Your task to perform on an android device: View the shopping cart on costco.com. Search for "logitech g pro" on costco.com, select the first entry, add it to the cart, then select checkout. Image 0: 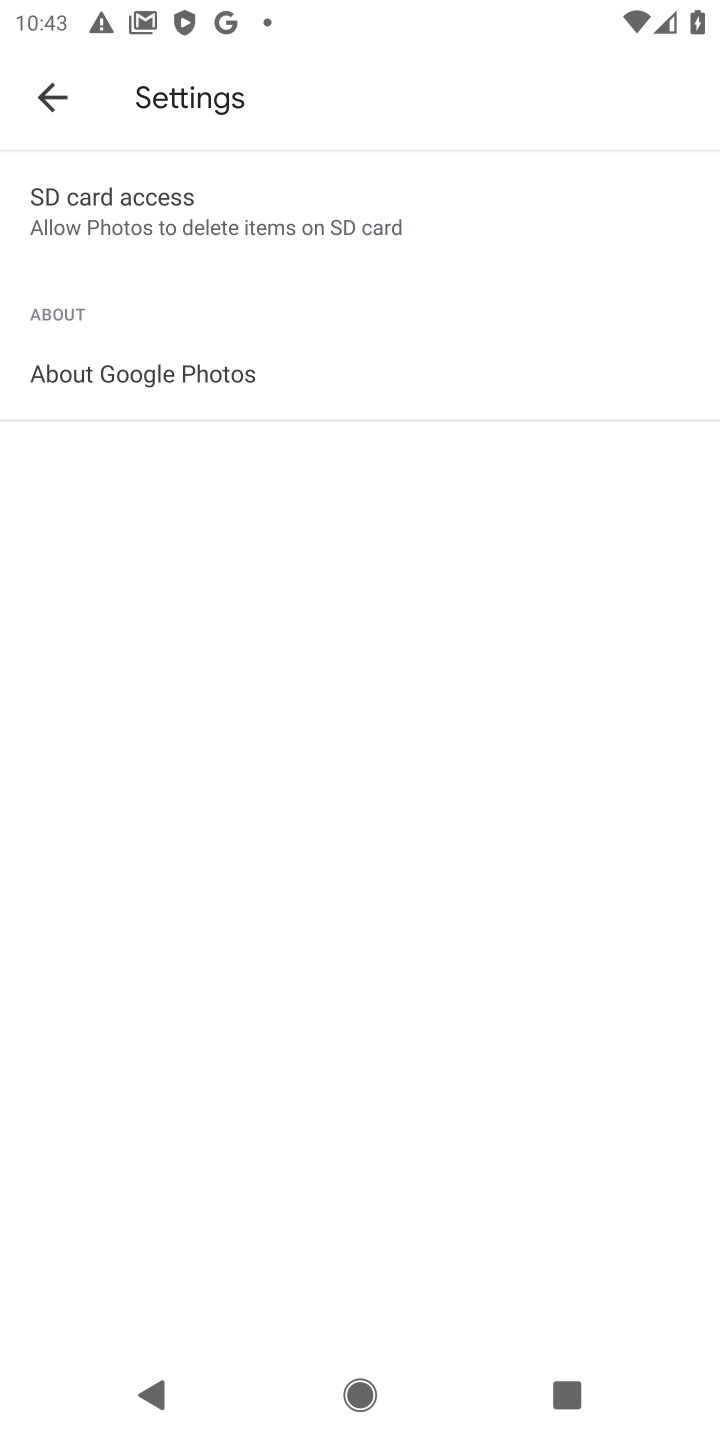
Step 0: press home button
Your task to perform on an android device: View the shopping cart on costco.com. Search for "logitech g pro" on costco.com, select the first entry, add it to the cart, then select checkout. Image 1: 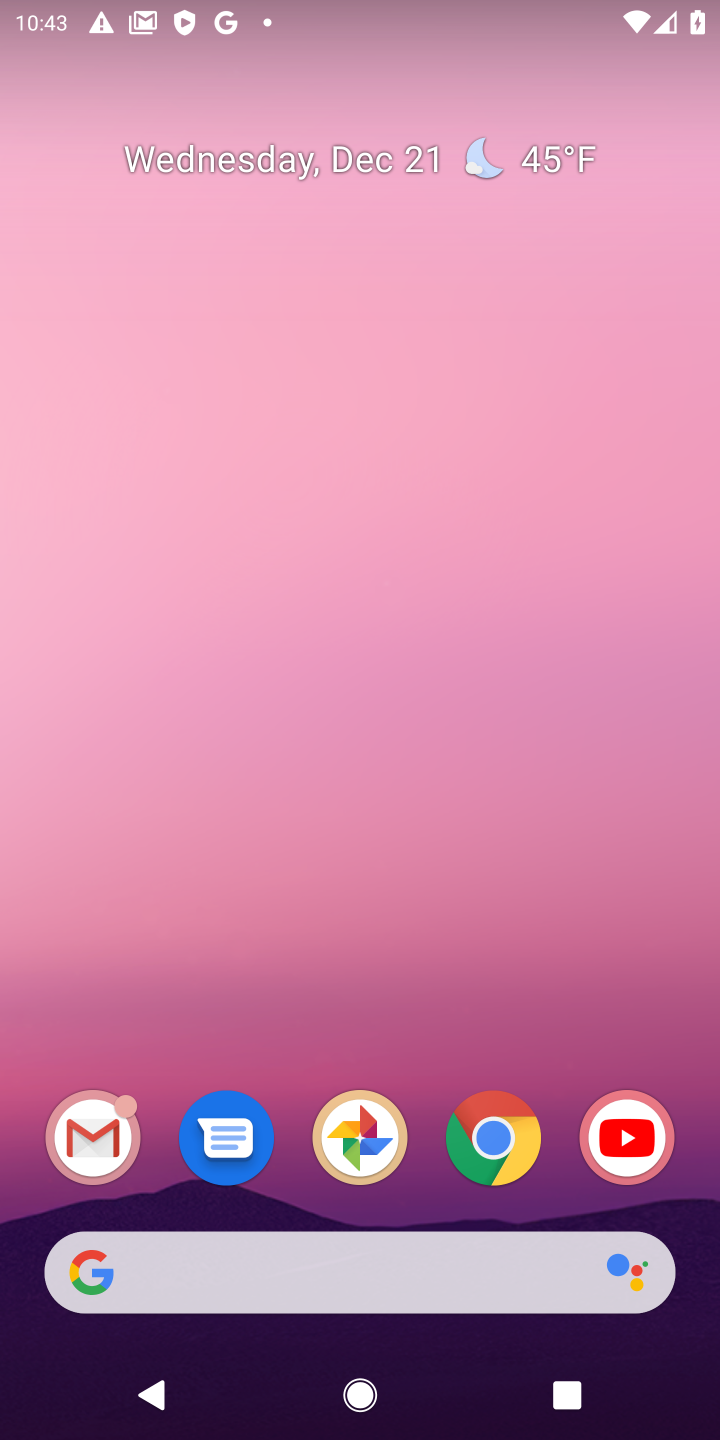
Step 1: click (499, 1141)
Your task to perform on an android device: View the shopping cart on costco.com. Search for "logitech g pro" on costco.com, select the first entry, add it to the cart, then select checkout. Image 2: 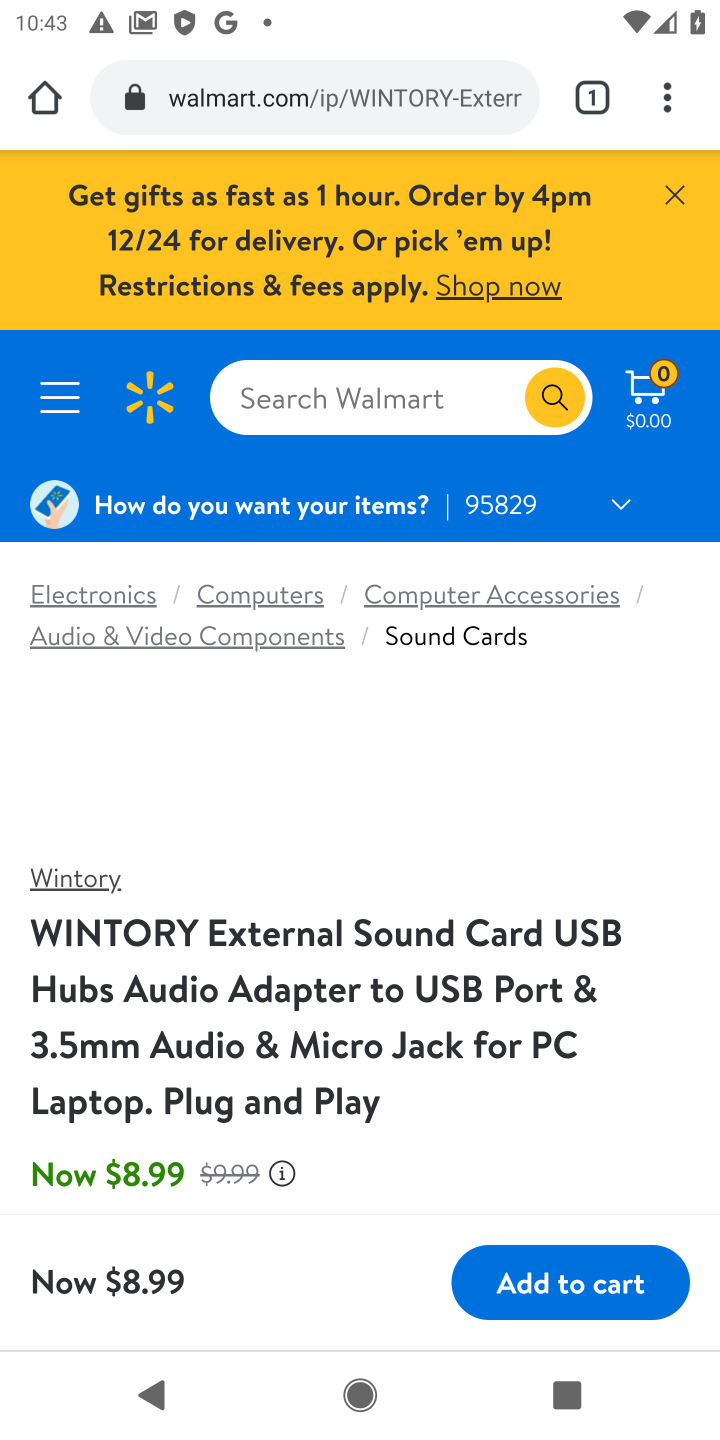
Step 2: click (242, 105)
Your task to perform on an android device: View the shopping cart on costco.com. Search for "logitech g pro" on costco.com, select the first entry, add it to the cart, then select checkout. Image 3: 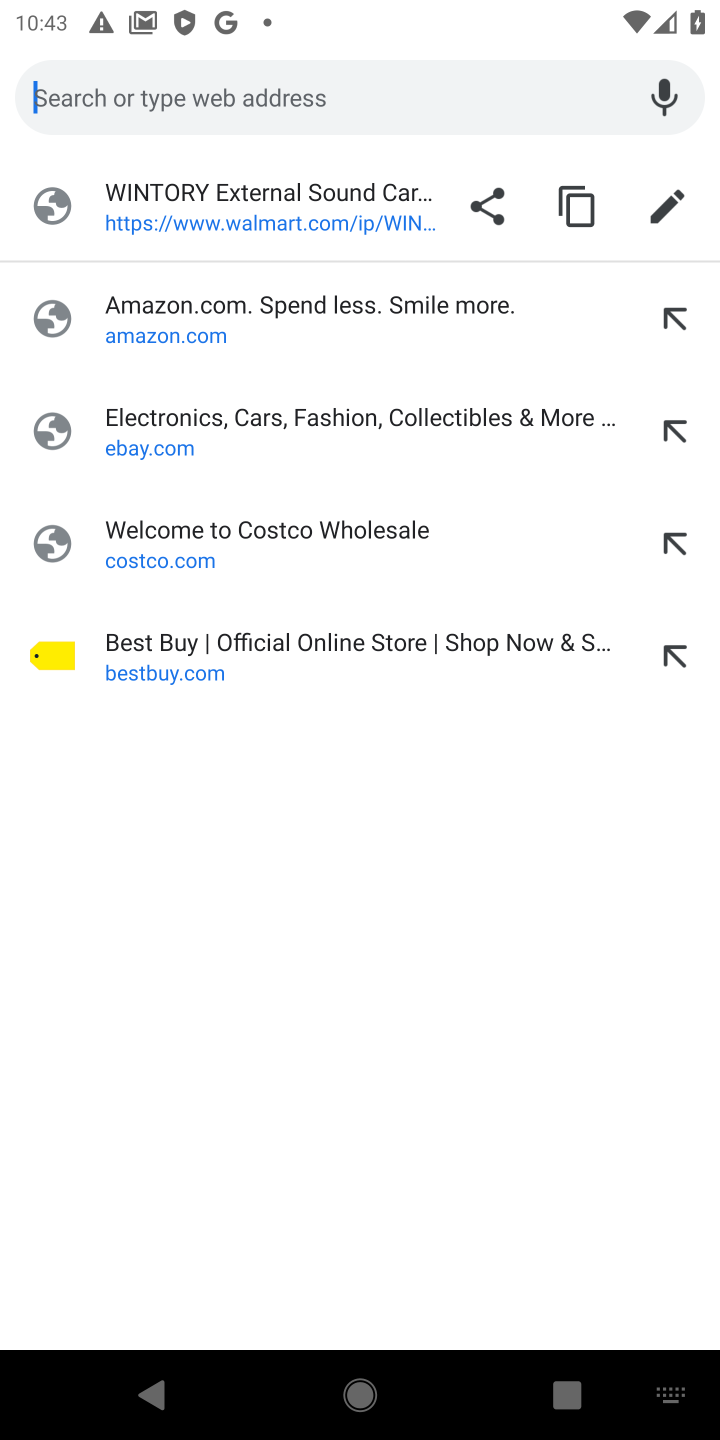
Step 3: click (129, 539)
Your task to perform on an android device: View the shopping cart on costco.com. Search for "logitech g pro" on costco.com, select the first entry, add it to the cart, then select checkout. Image 4: 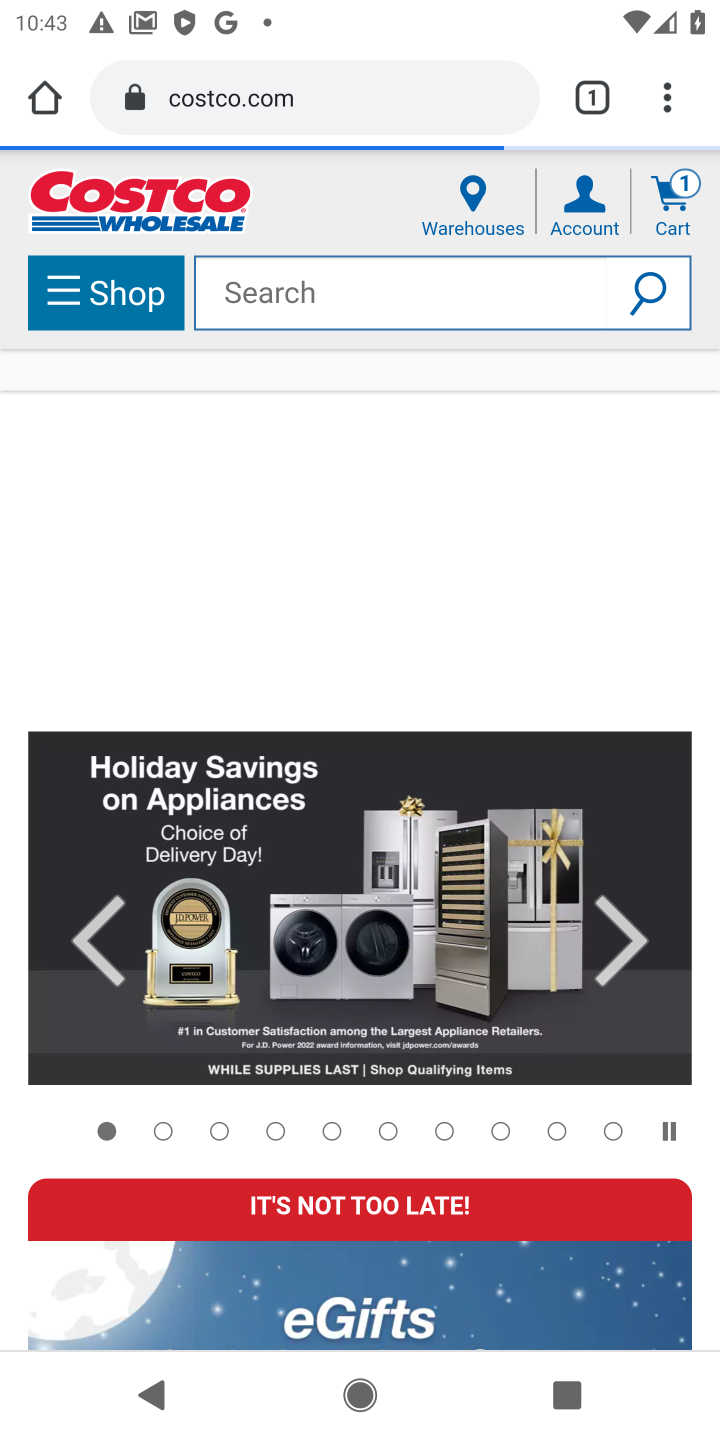
Step 4: click (657, 209)
Your task to perform on an android device: View the shopping cart on costco.com. Search for "logitech g pro" on costco.com, select the first entry, add it to the cart, then select checkout. Image 5: 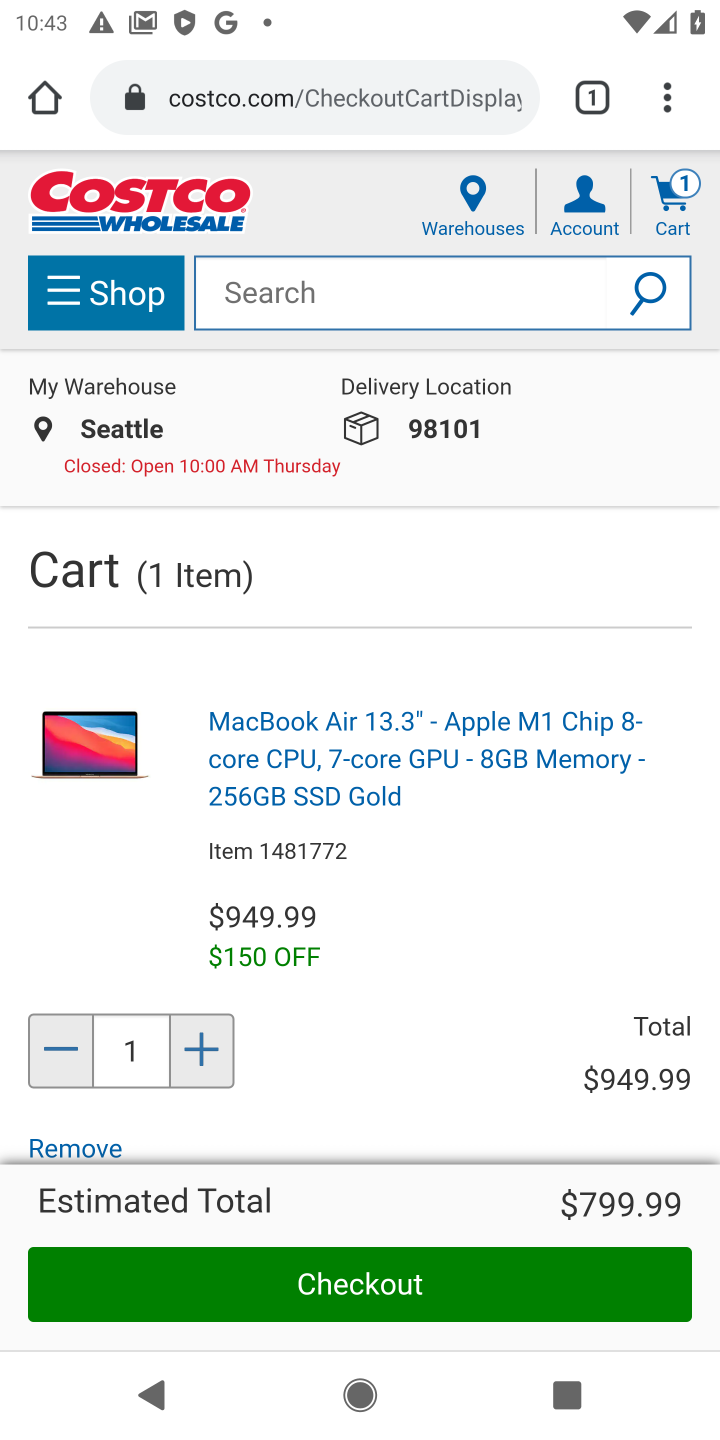
Step 5: drag from (351, 959) to (349, 731)
Your task to perform on an android device: View the shopping cart on costco.com. Search for "logitech g pro" on costco.com, select the first entry, add it to the cart, then select checkout. Image 6: 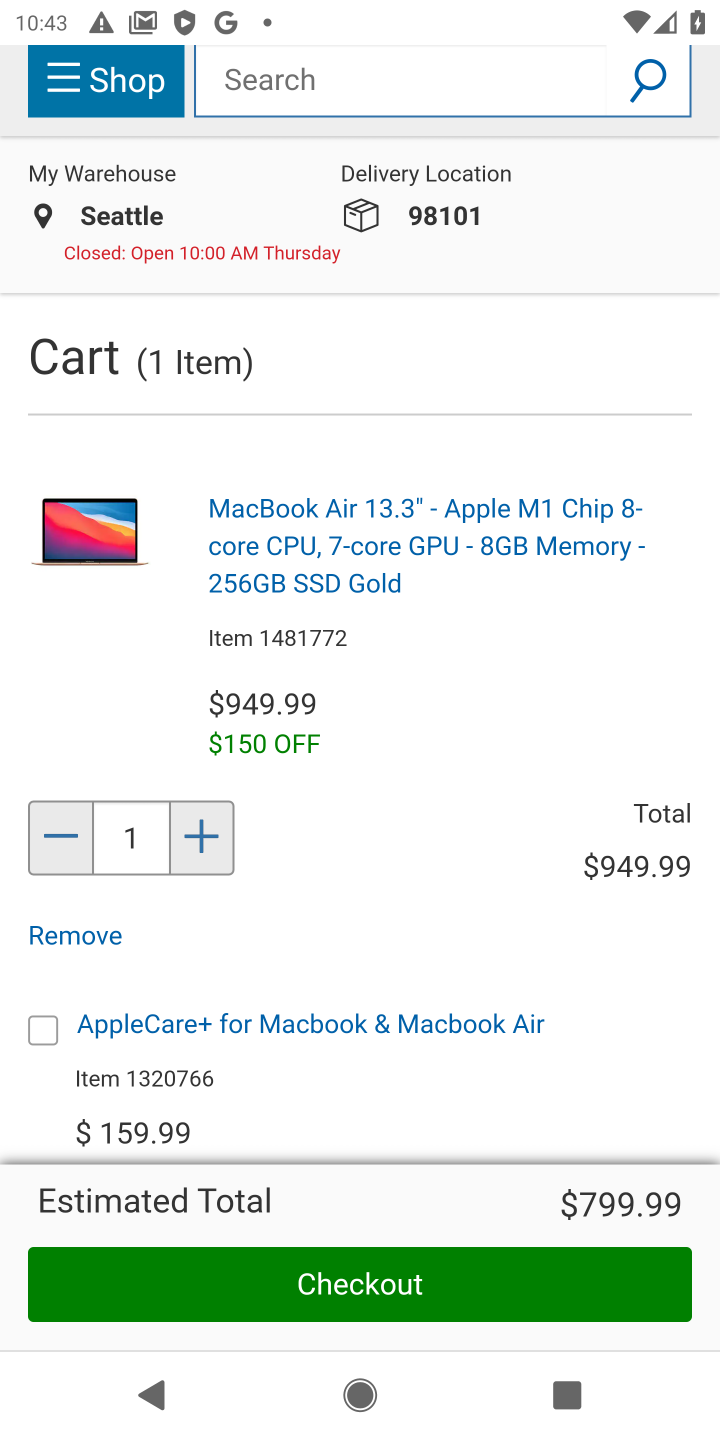
Step 6: drag from (398, 362) to (378, 853)
Your task to perform on an android device: View the shopping cart on costco.com. Search for "logitech g pro" on costco.com, select the first entry, add it to the cart, then select checkout. Image 7: 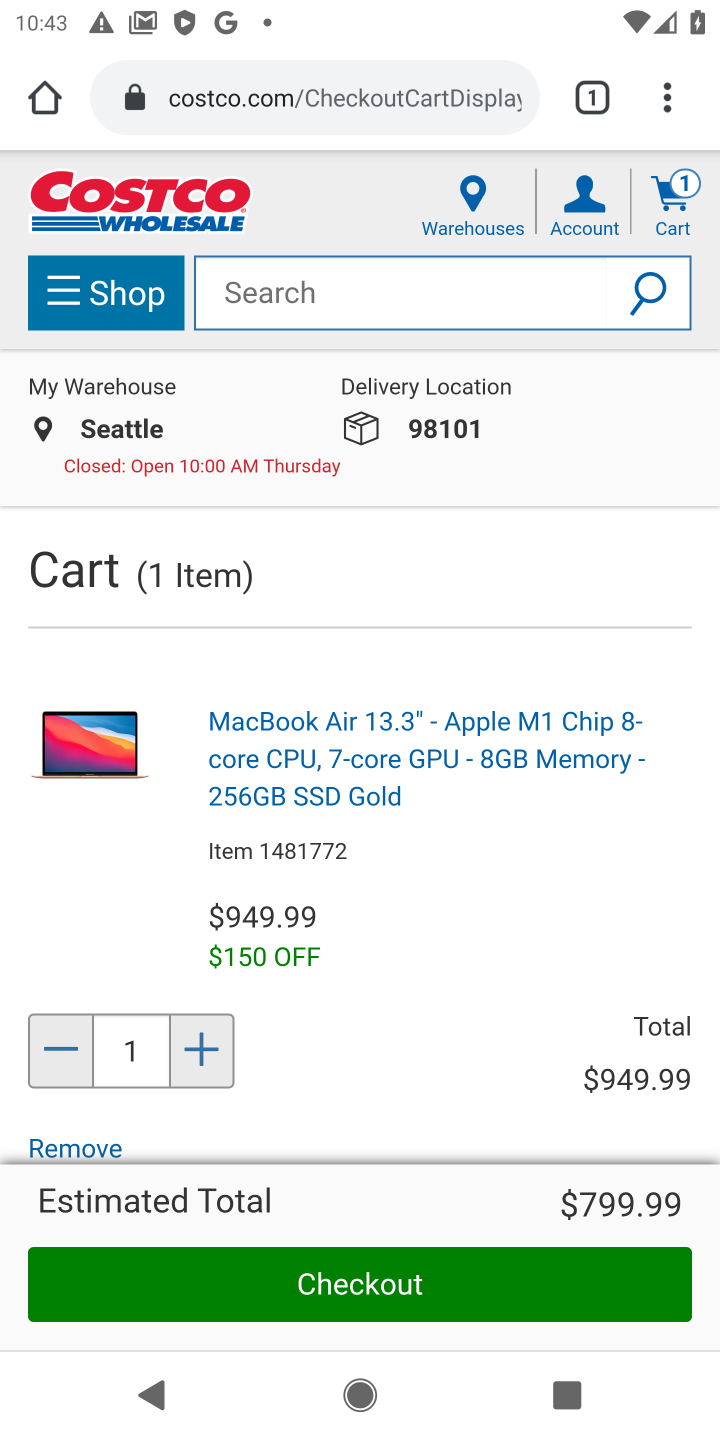
Step 7: click (281, 289)
Your task to perform on an android device: View the shopping cart on costco.com. Search for "logitech g pro" on costco.com, select the first entry, add it to the cart, then select checkout. Image 8: 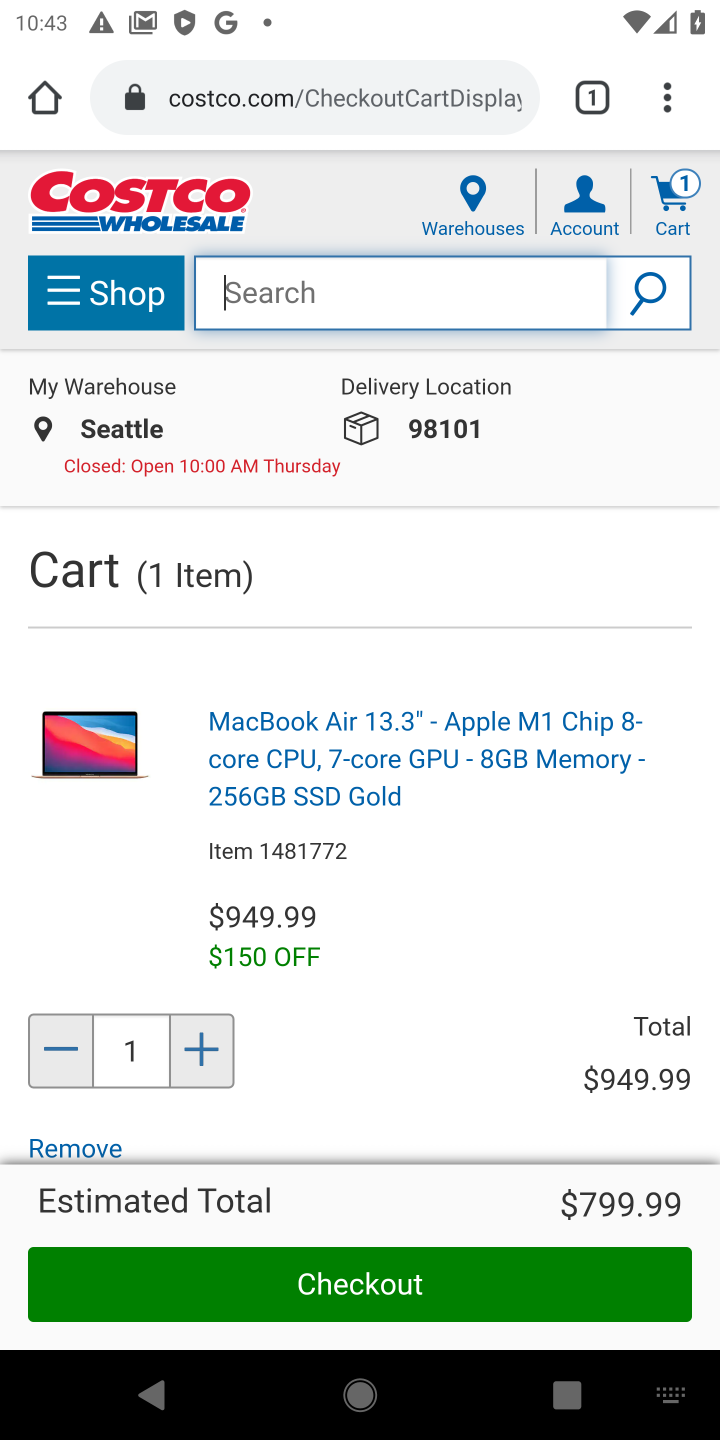
Step 8: type "logitech g pro"
Your task to perform on an android device: View the shopping cart on costco.com. Search for "logitech g pro" on costco.com, select the first entry, add it to the cart, then select checkout. Image 9: 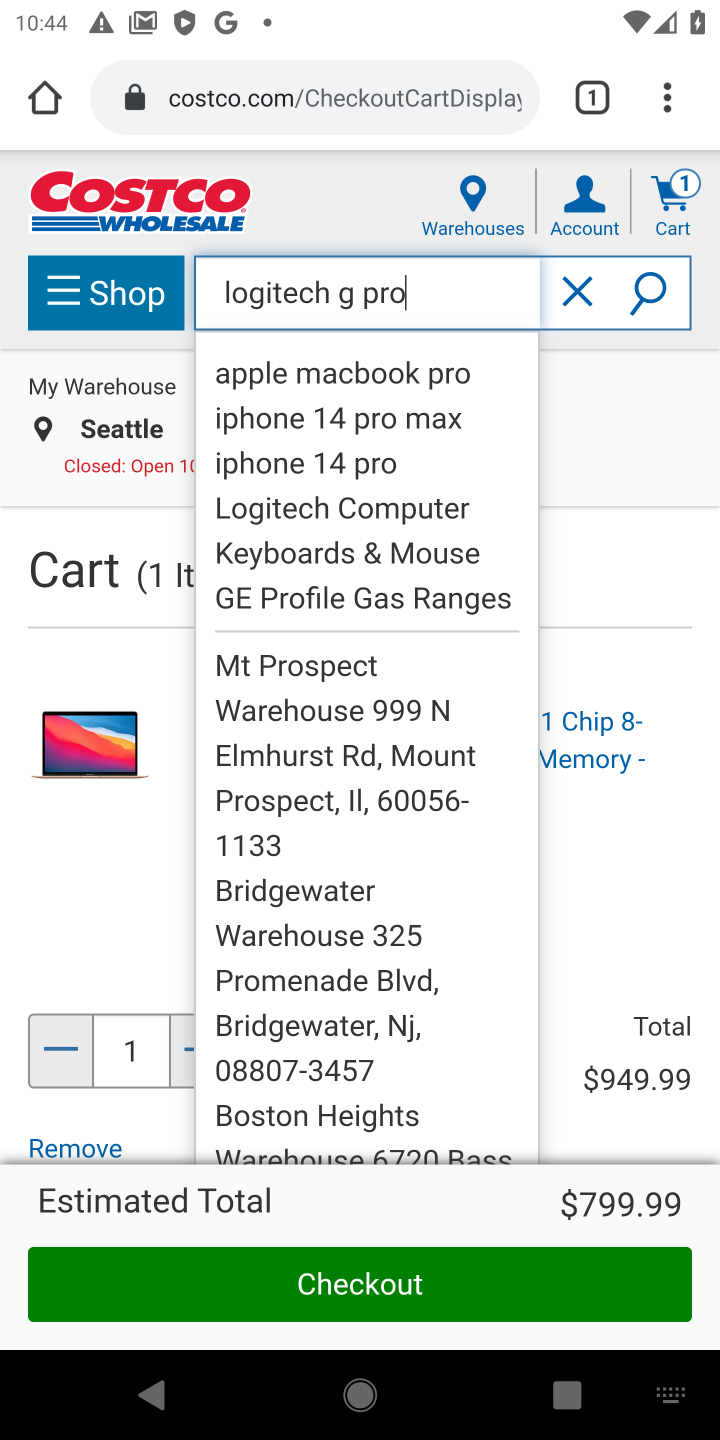
Step 9: click (653, 303)
Your task to perform on an android device: View the shopping cart on costco.com. Search for "logitech g pro" on costco.com, select the first entry, add it to the cart, then select checkout. Image 10: 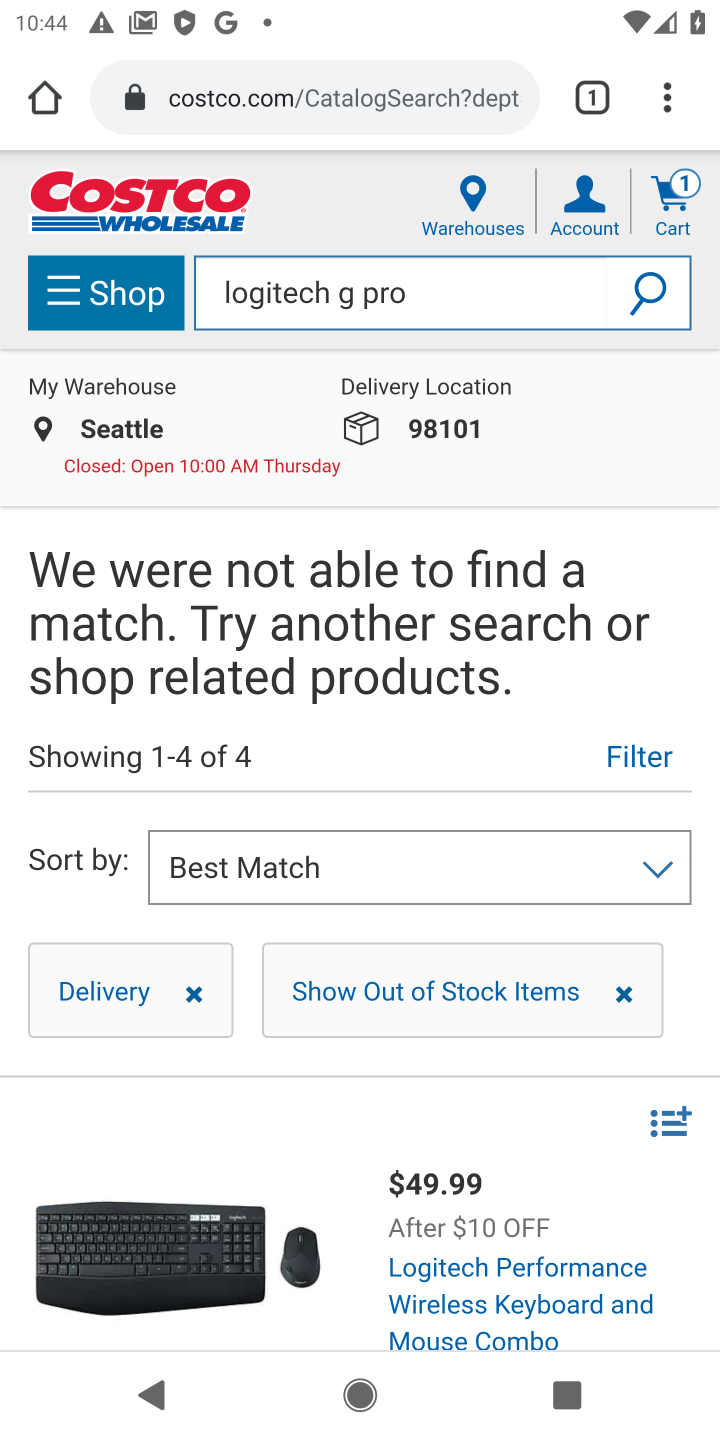
Step 10: task complete